Your task to perform on an android device: Add logitech g933 to the cart on costco Image 0: 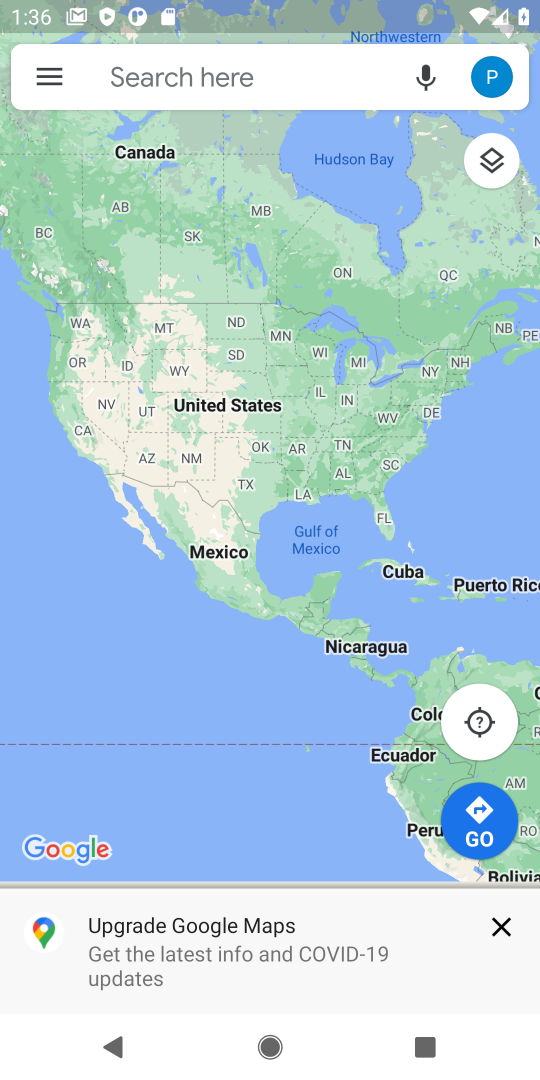
Step 0: press home button
Your task to perform on an android device: Add logitech g933 to the cart on costco Image 1: 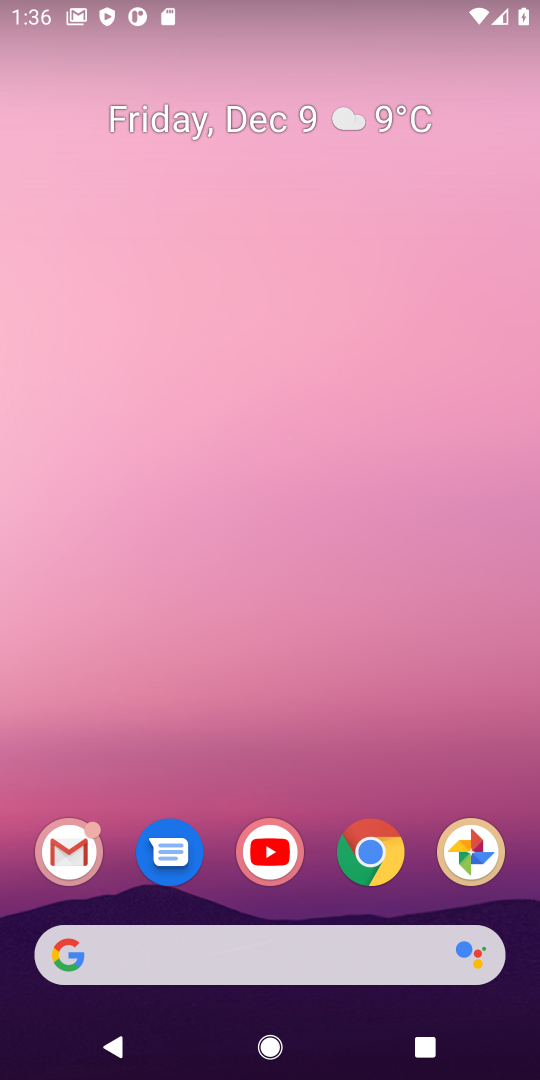
Step 1: click (380, 858)
Your task to perform on an android device: Add logitech g933 to the cart on costco Image 2: 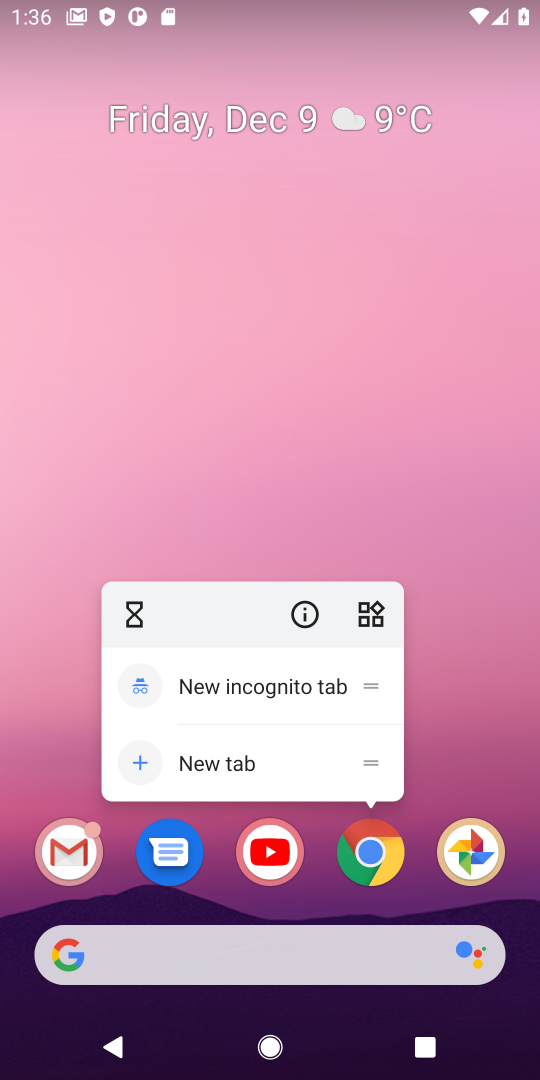
Step 2: click (366, 852)
Your task to perform on an android device: Add logitech g933 to the cart on costco Image 3: 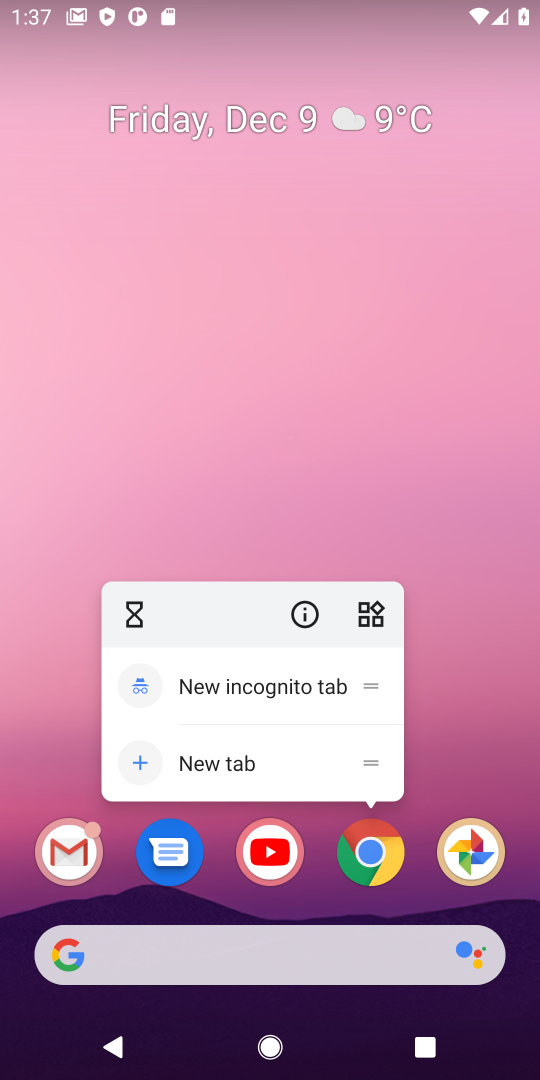
Step 3: click (366, 852)
Your task to perform on an android device: Add logitech g933 to the cart on costco Image 4: 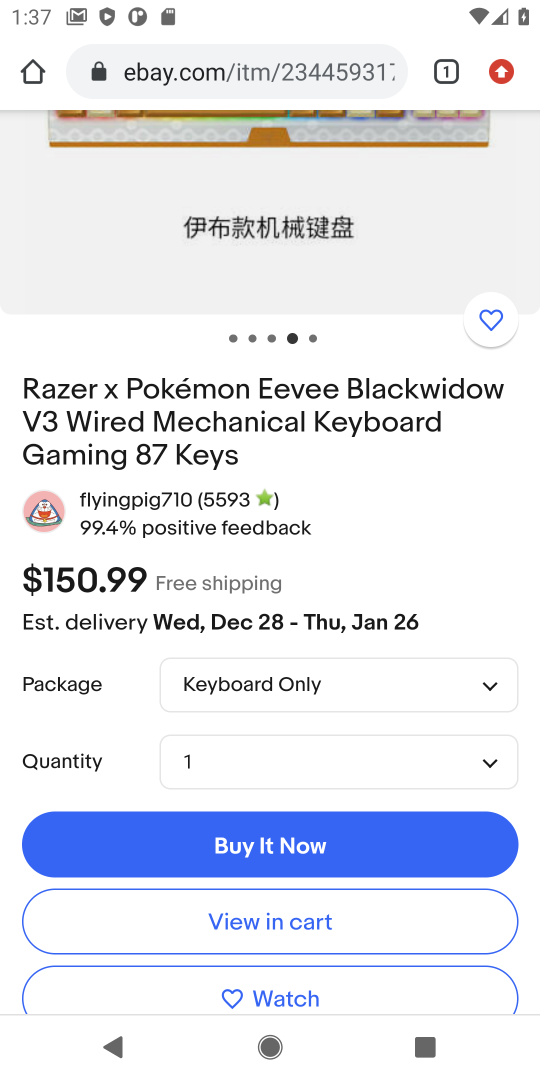
Step 4: click (168, 76)
Your task to perform on an android device: Add logitech g933 to the cart on costco Image 5: 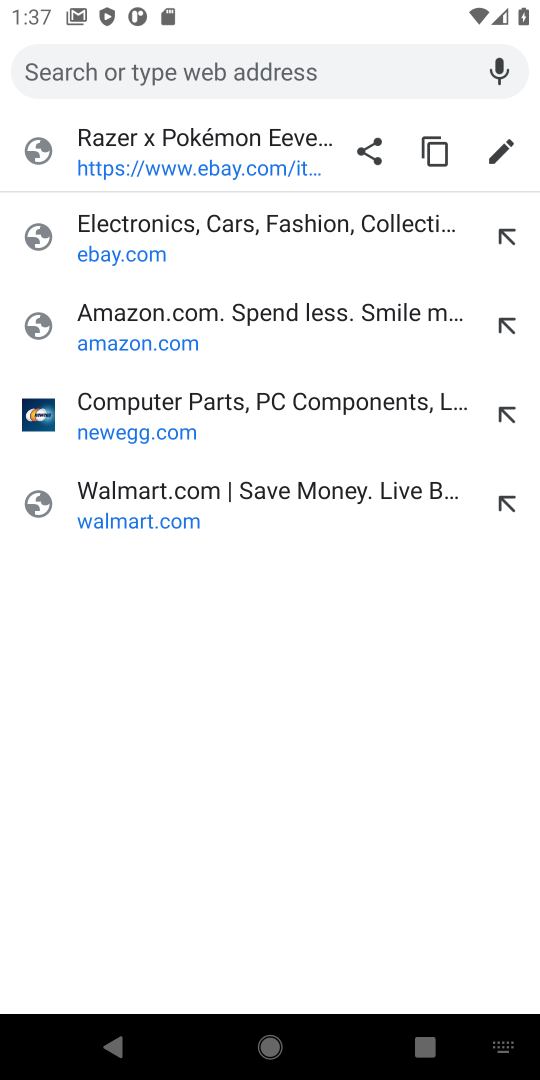
Step 5: type "costco"
Your task to perform on an android device: Add logitech g933 to the cart on costco Image 6: 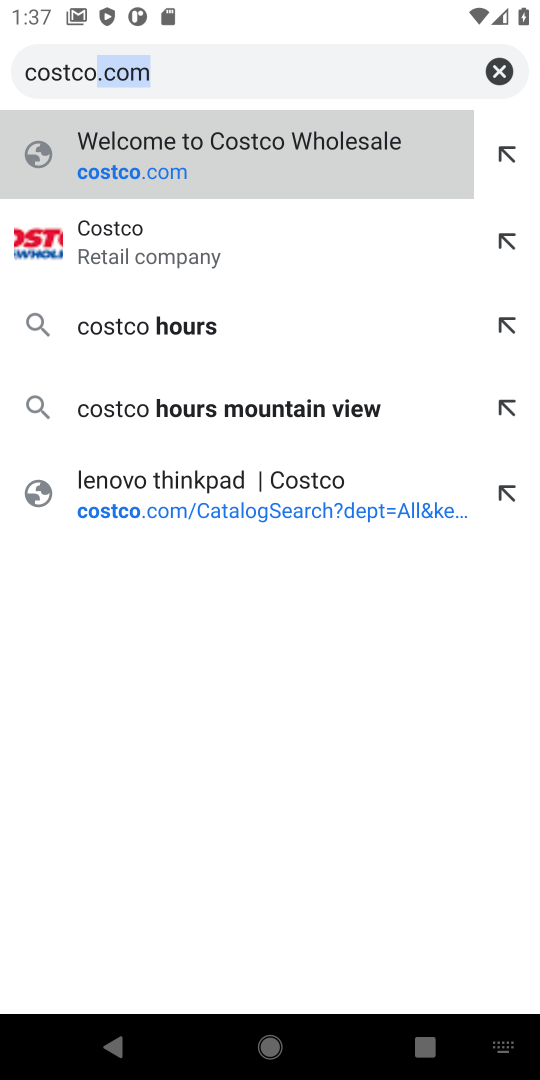
Step 6: press enter
Your task to perform on an android device: Add logitech g933 to the cart on costco Image 7: 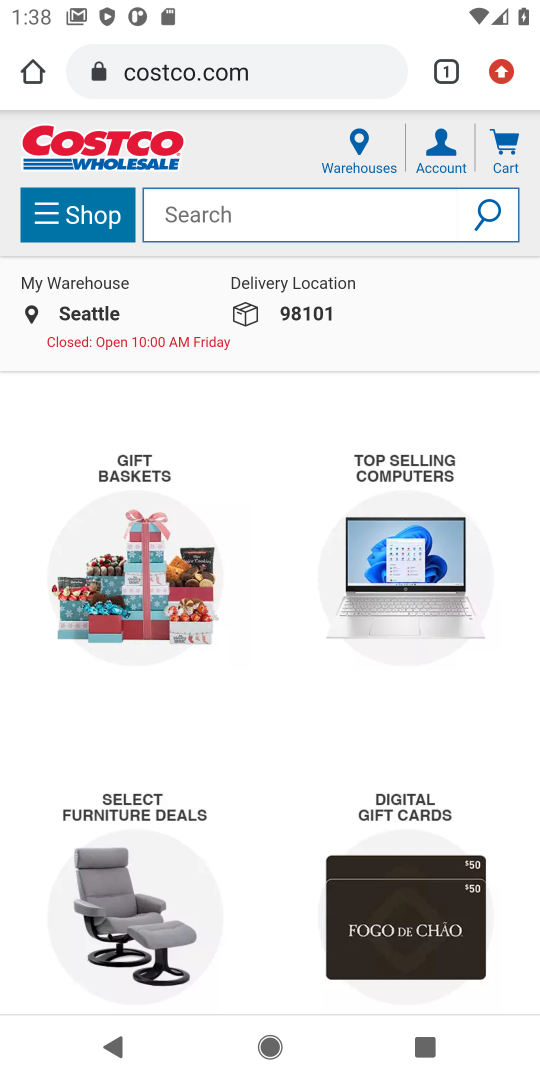
Step 7: click (305, 213)
Your task to perform on an android device: Add logitech g933 to the cart on costco Image 8: 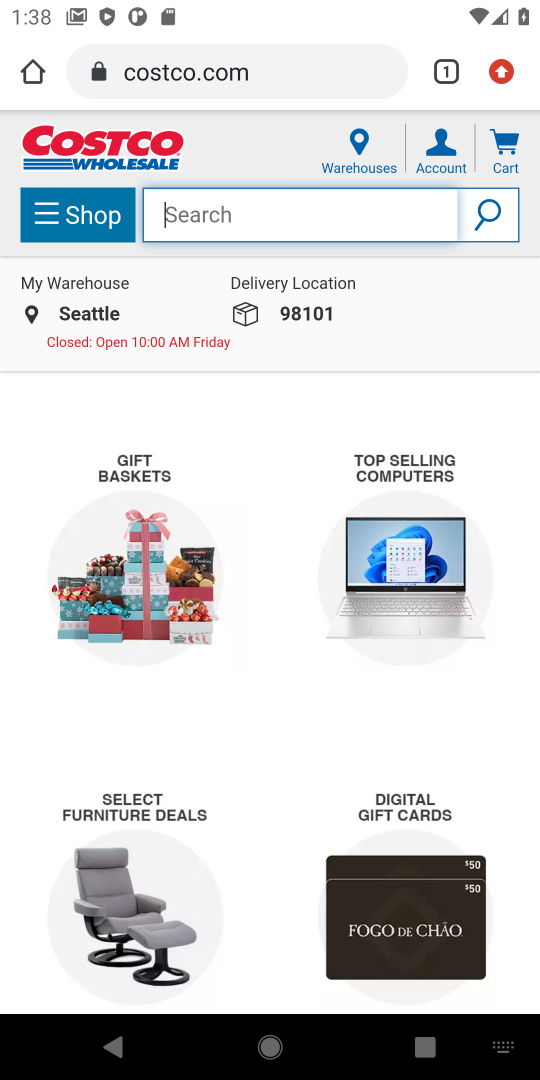
Step 8: type "logitech g933"
Your task to perform on an android device: Add logitech g933 to the cart on costco Image 9: 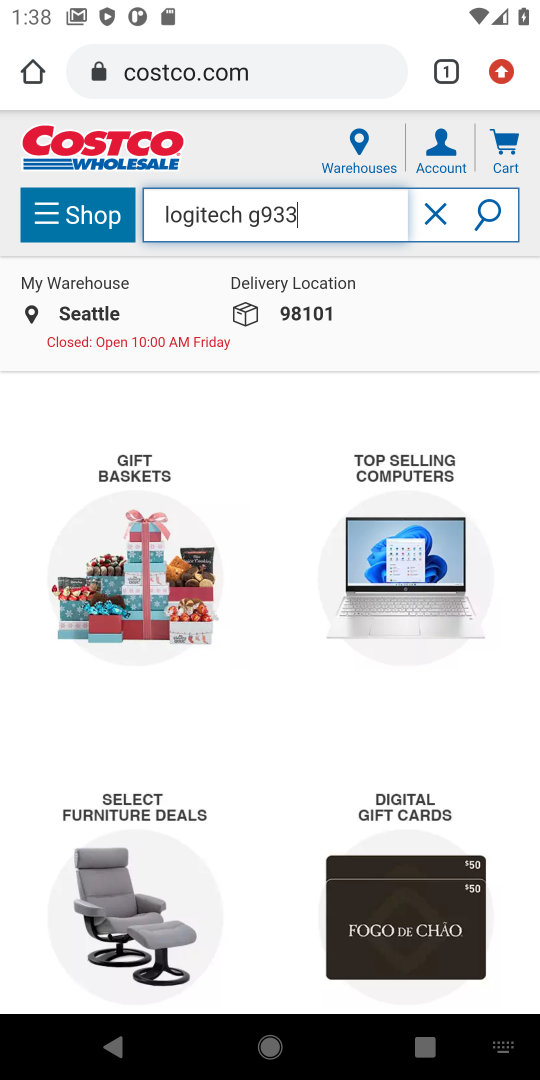
Step 9: press enter
Your task to perform on an android device: Add logitech g933 to the cart on costco Image 10: 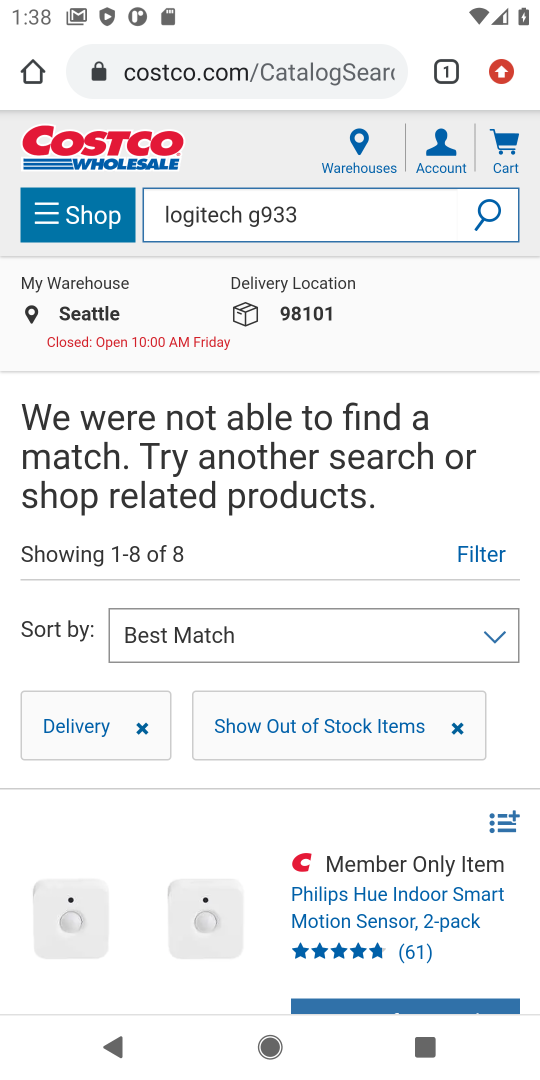
Step 10: press enter
Your task to perform on an android device: Add logitech g933 to the cart on costco Image 11: 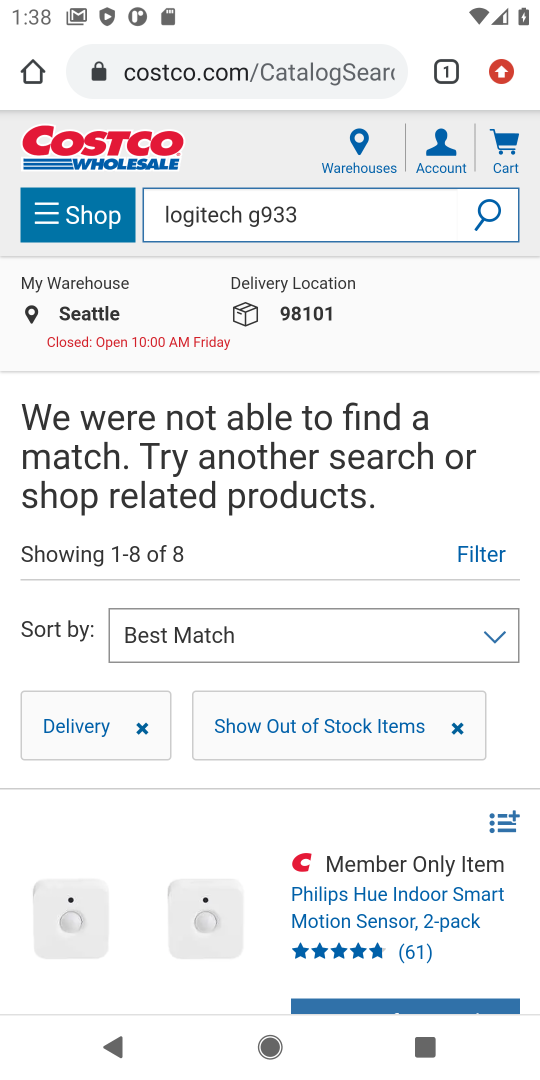
Step 11: drag from (228, 824) to (273, 495)
Your task to perform on an android device: Add logitech g933 to the cart on costco Image 12: 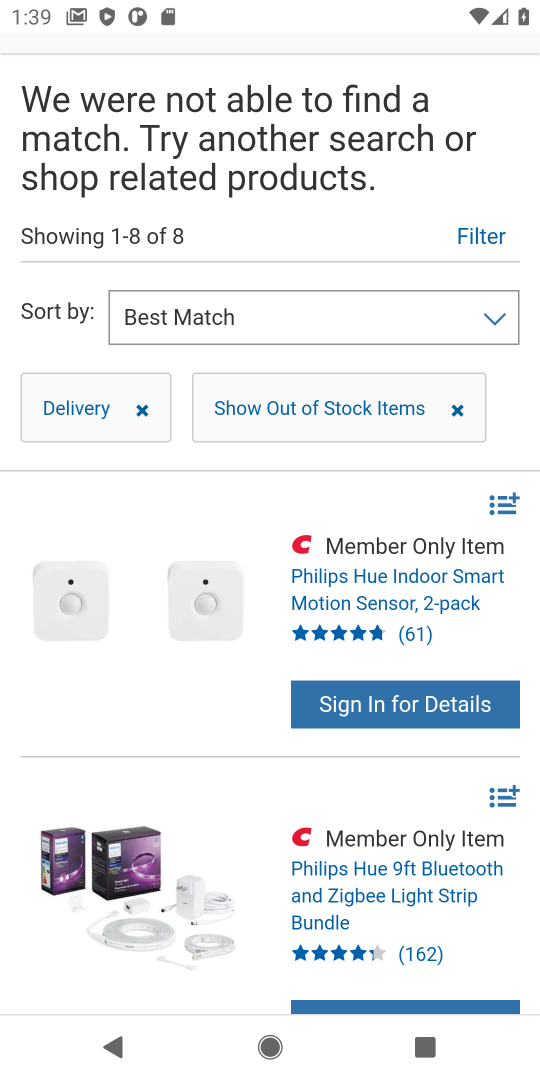
Step 12: click (237, 337)
Your task to perform on an android device: Add logitech g933 to the cart on costco Image 13: 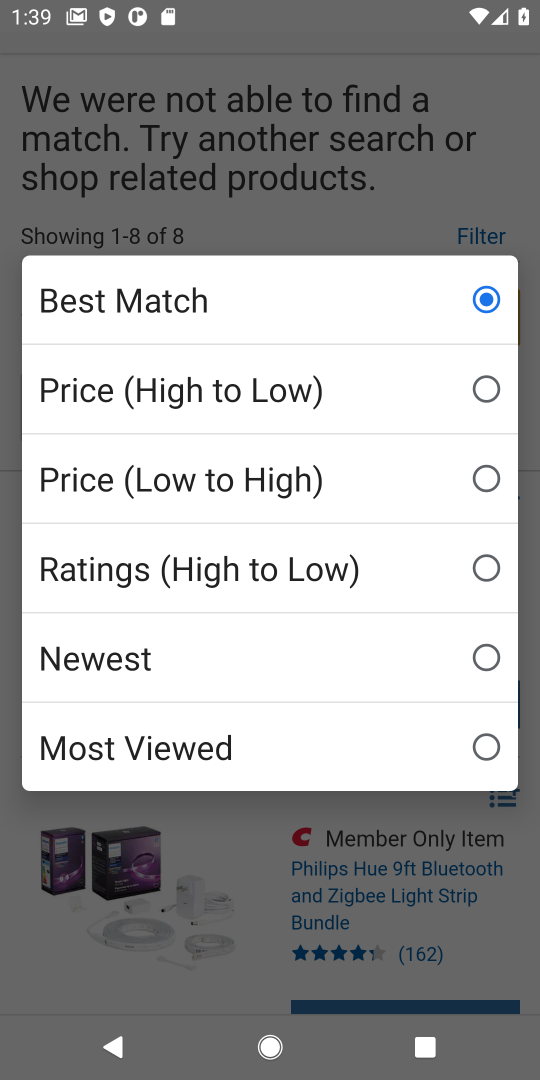
Step 13: click (218, 846)
Your task to perform on an android device: Add logitech g933 to the cart on costco Image 14: 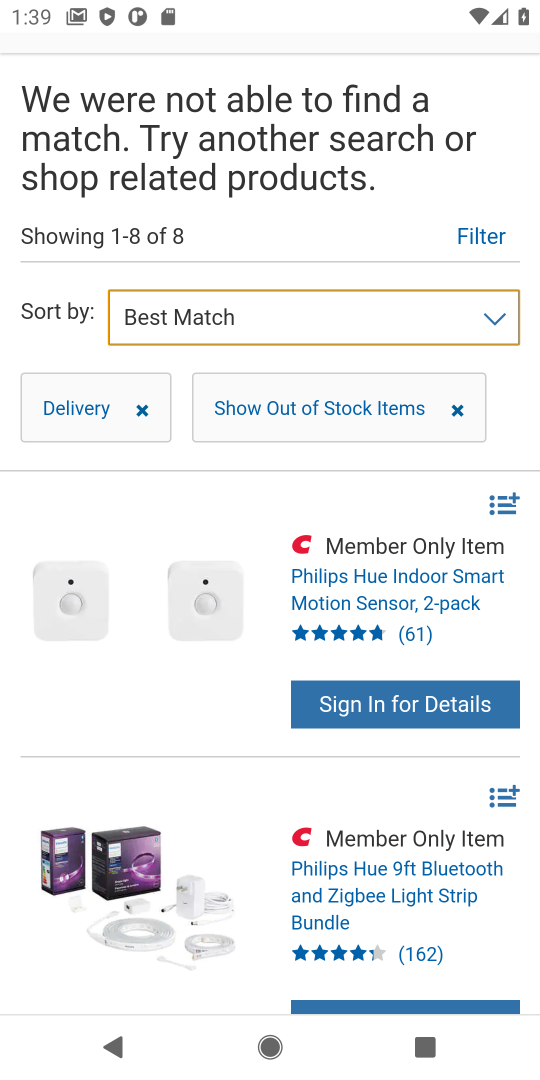
Step 14: task complete